Your task to perform on an android device: see sites visited before in the chrome app Image 0: 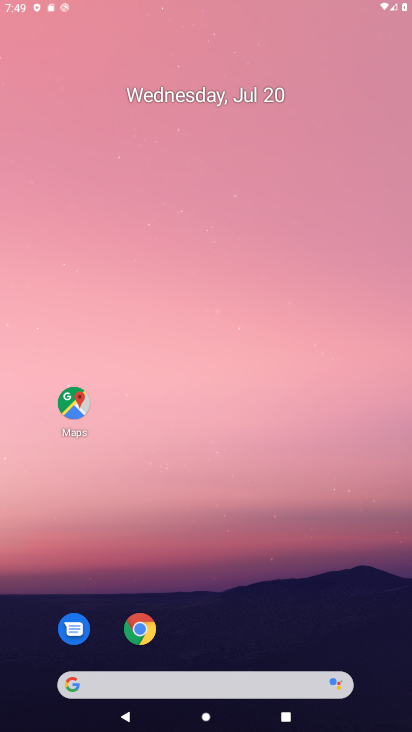
Step 0: drag from (214, 699) to (148, 183)
Your task to perform on an android device: see sites visited before in the chrome app Image 1: 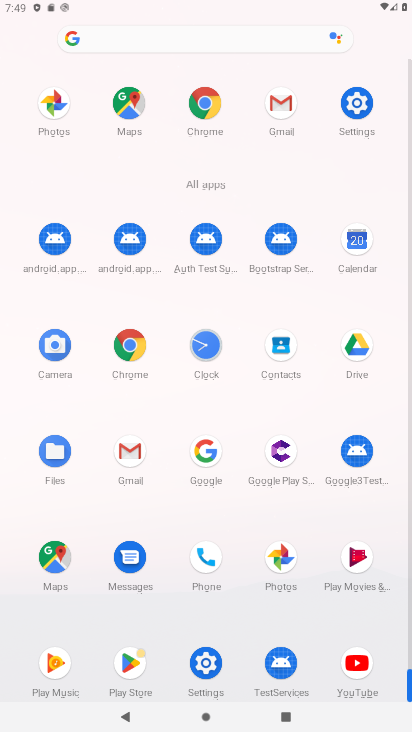
Step 1: click (201, 102)
Your task to perform on an android device: see sites visited before in the chrome app Image 2: 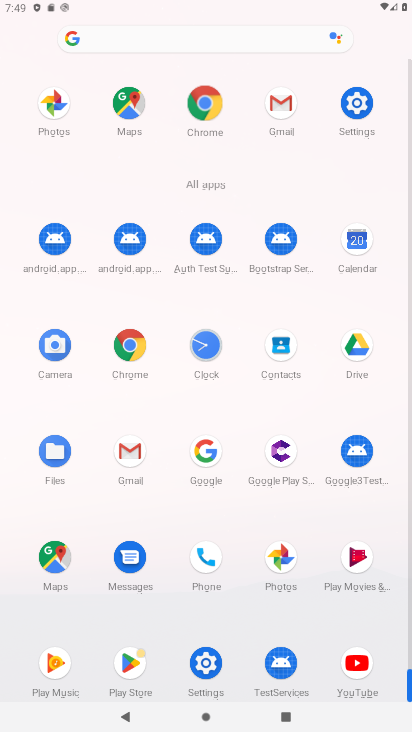
Step 2: click (203, 99)
Your task to perform on an android device: see sites visited before in the chrome app Image 3: 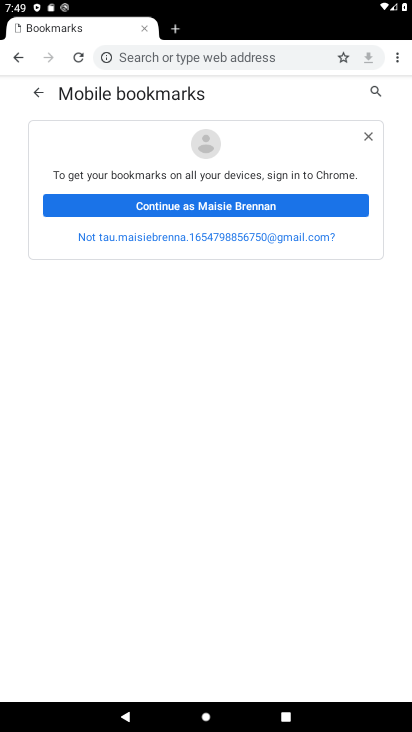
Step 3: click (369, 136)
Your task to perform on an android device: see sites visited before in the chrome app Image 4: 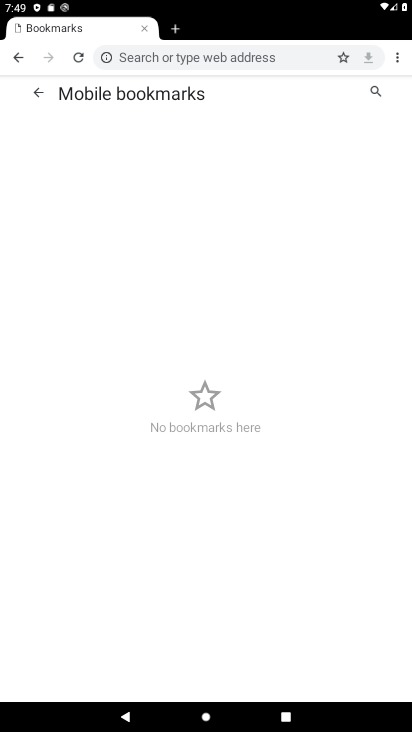
Step 4: click (42, 91)
Your task to perform on an android device: see sites visited before in the chrome app Image 5: 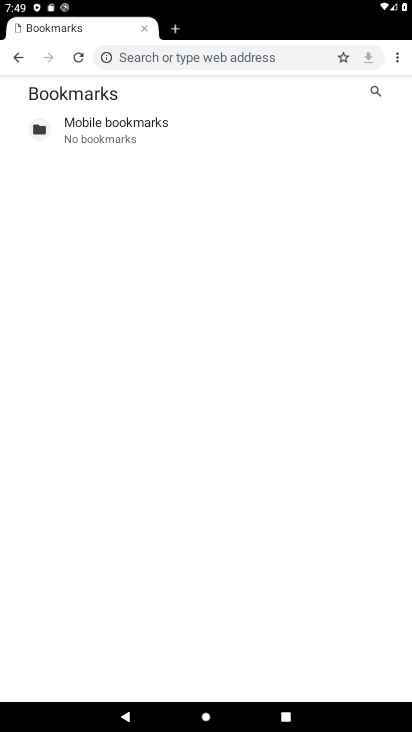
Step 5: click (25, 51)
Your task to perform on an android device: see sites visited before in the chrome app Image 6: 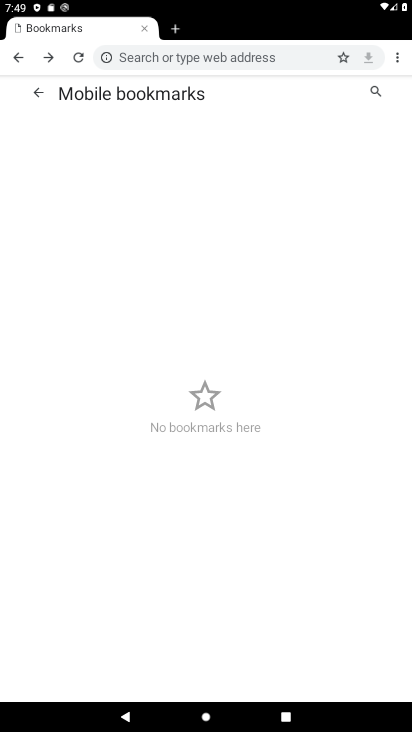
Step 6: drag from (398, 57) to (277, 145)
Your task to perform on an android device: see sites visited before in the chrome app Image 7: 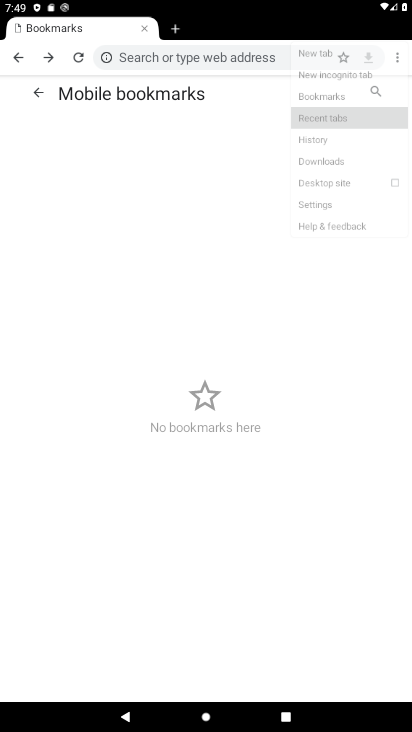
Step 7: click (277, 146)
Your task to perform on an android device: see sites visited before in the chrome app Image 8: 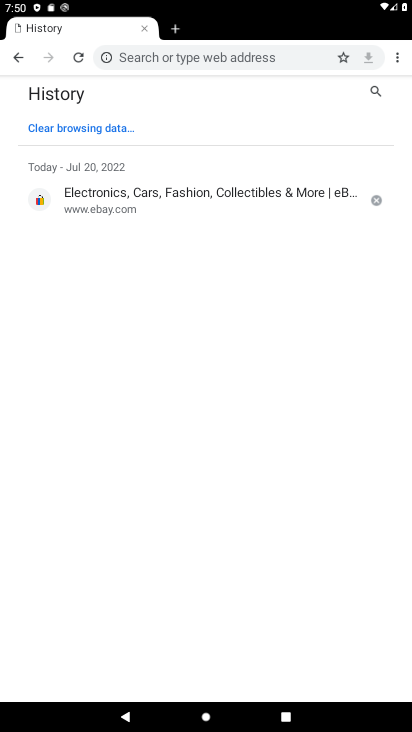
Step 8: task complete